Your task to perform on an android device: See recent photos Image 0: 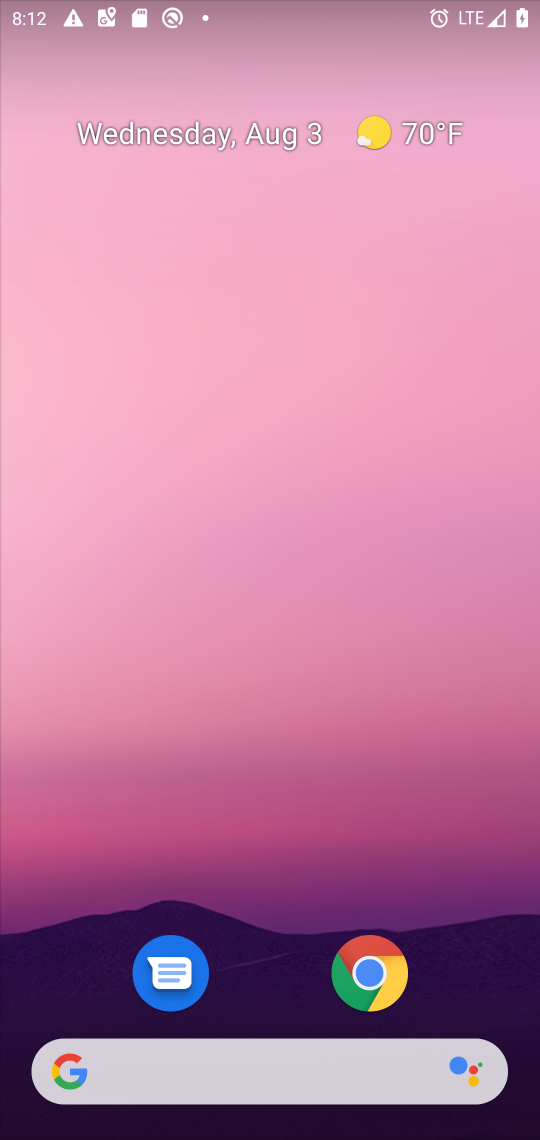
Step 0: press home button
Your task to perform on an android device: See recent photos Image 1: 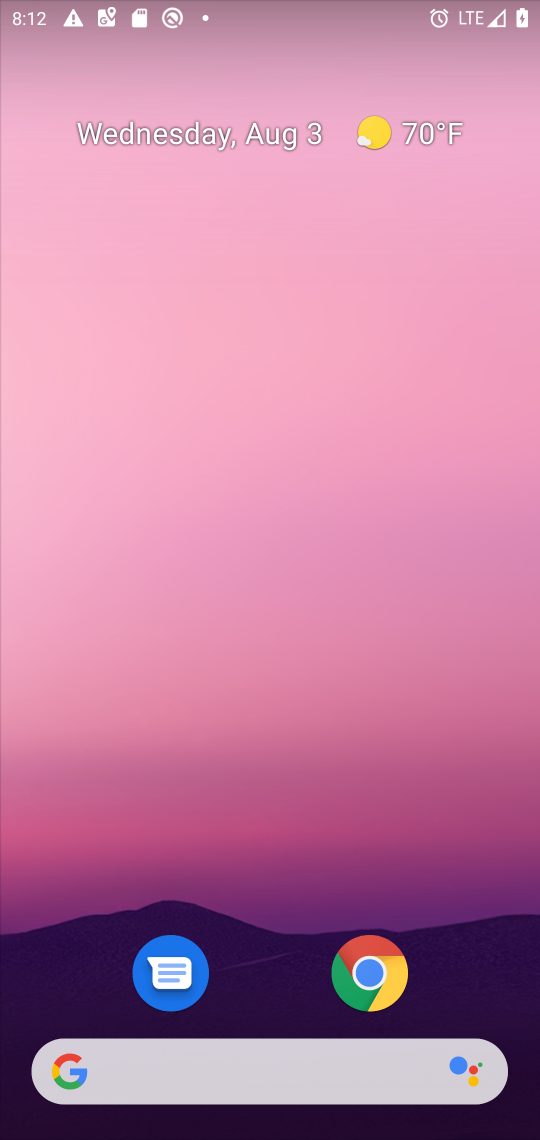
Step 1: press home button
Your task to perform on an android device: See recent photos Image 2: 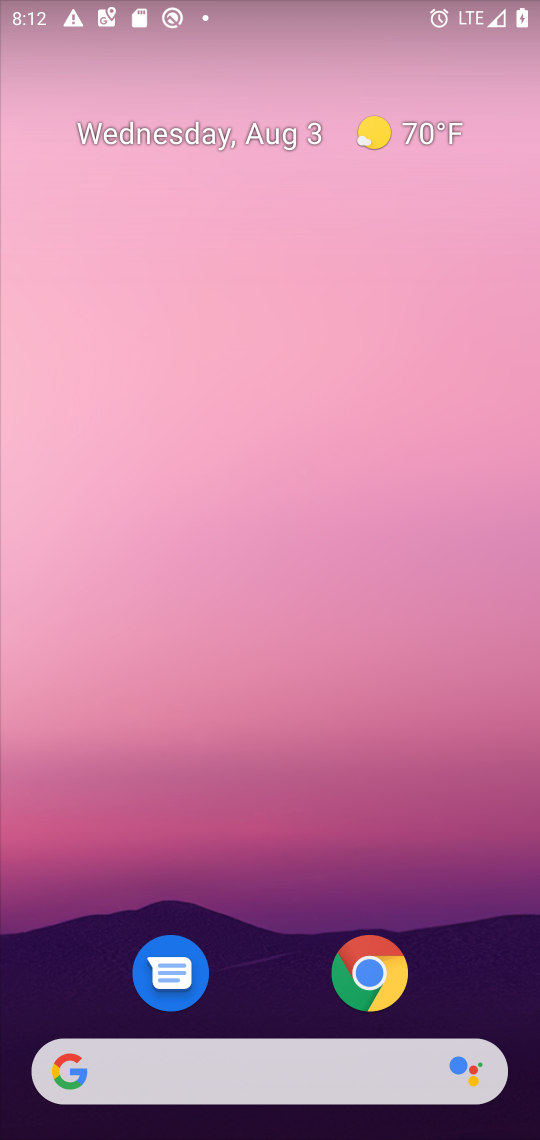
Step 2: drag from (283, 987) to (305, 0)
Your task to perform on an android device: See recent photos Image 3: 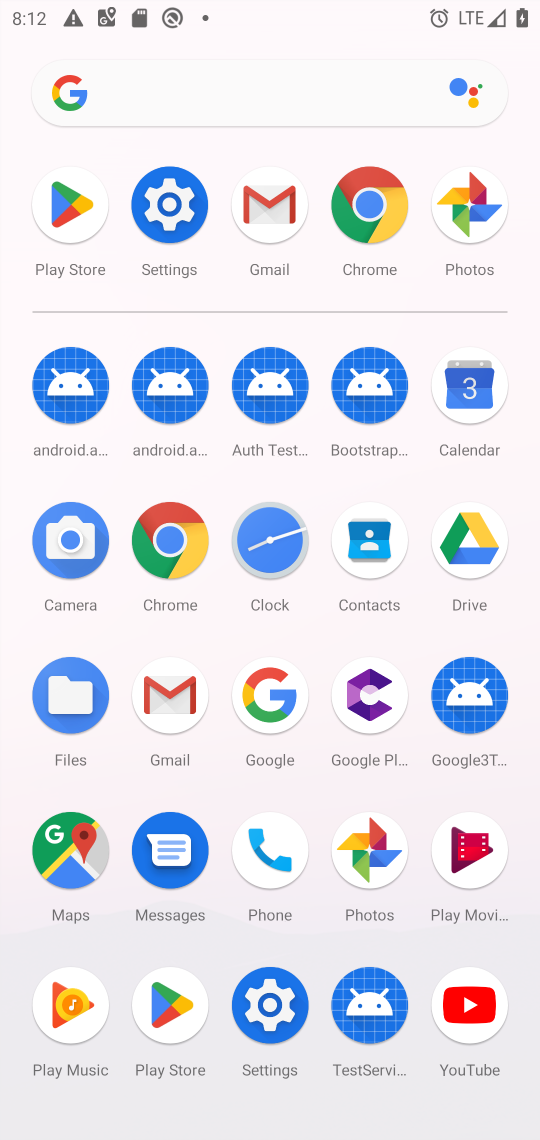
Step 3: click (373, 829)
Your task to perform on an android device: See recent photos Image 4: 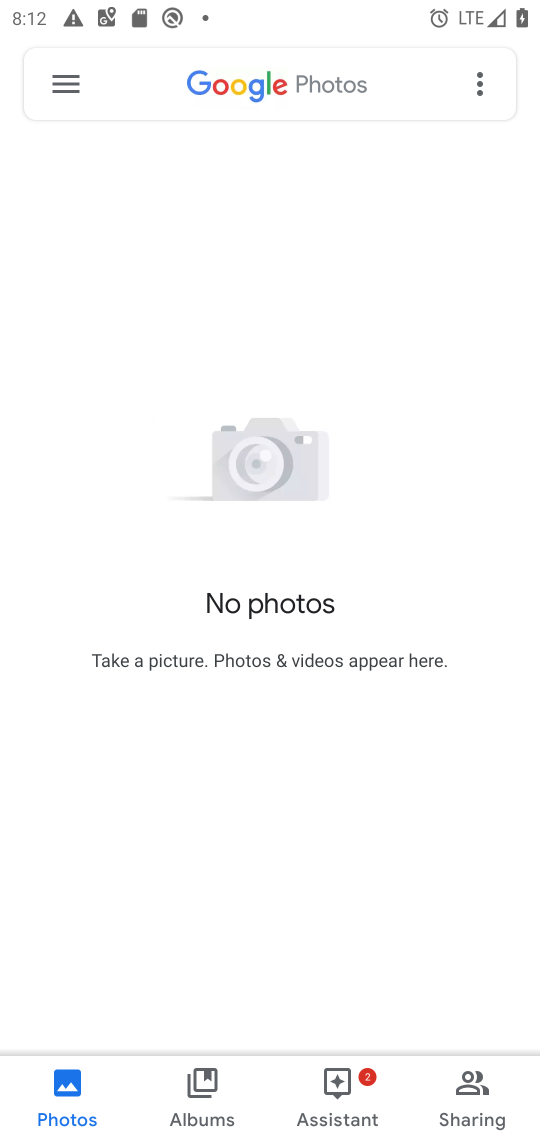
Step 4: click (79, 1083)
Your task to perform on an android device: See recent photos Image 5: 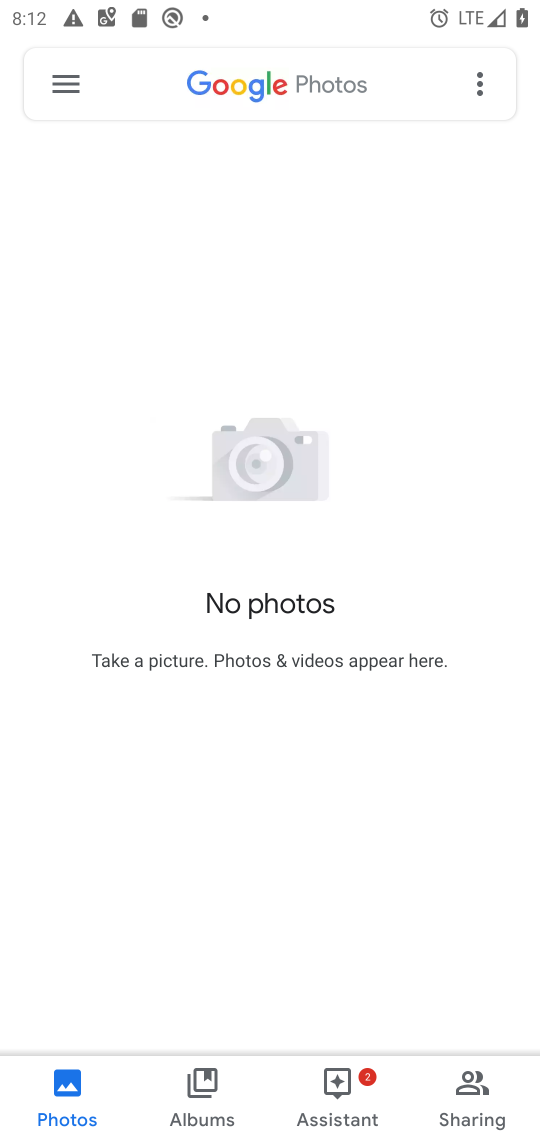
Step 5: task complete